Your task to perform on an android device: Check the weather Image 0: 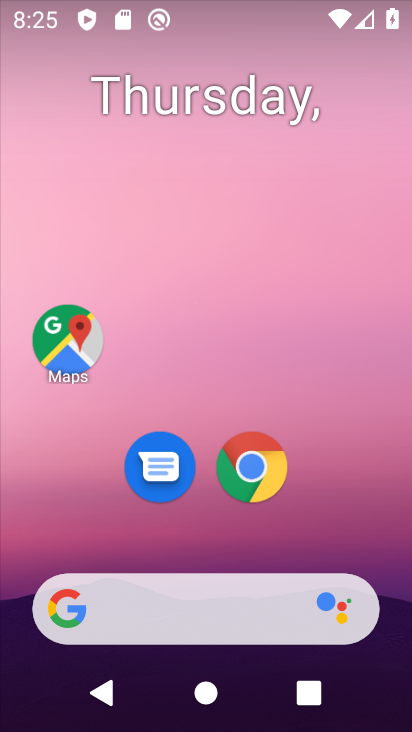
Step 0: click (212, 605)
Your task to perform on an android device: Check the weather Image 1: 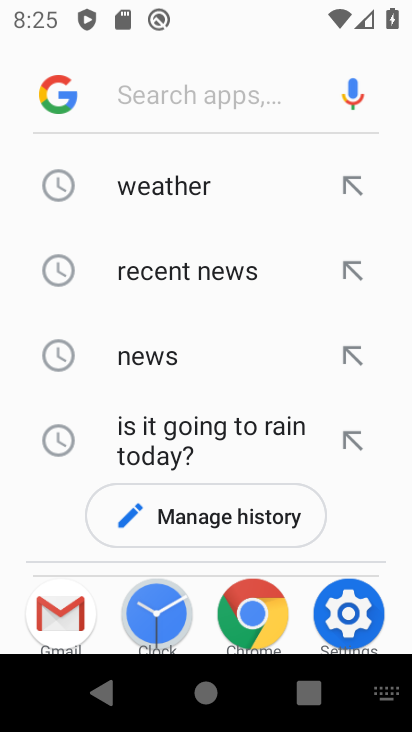
Step 1: click (142, 182)
Your task to perform on an android device: Check the weather Image 2: 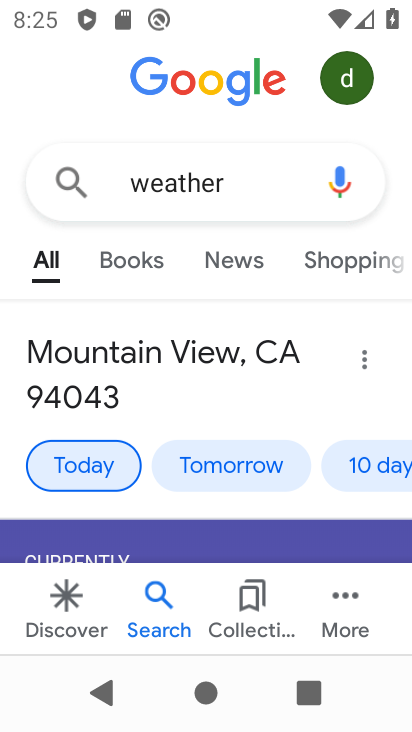
Step 2: task complete